Your task to perform on an android device: Open Google Image 0: 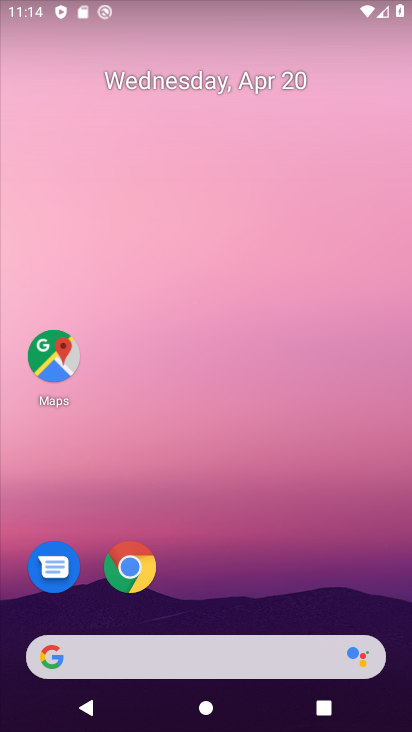
Step 0: drag from (259, 567) to (223, 82)
Your task to perform on an android device: Open Google Image 1: 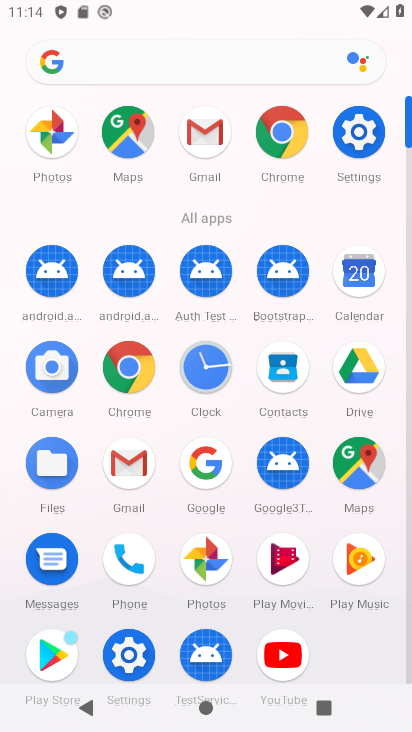
Step 1: click (209, 474)
Your task to perform on an android device: Open Google Image 2: 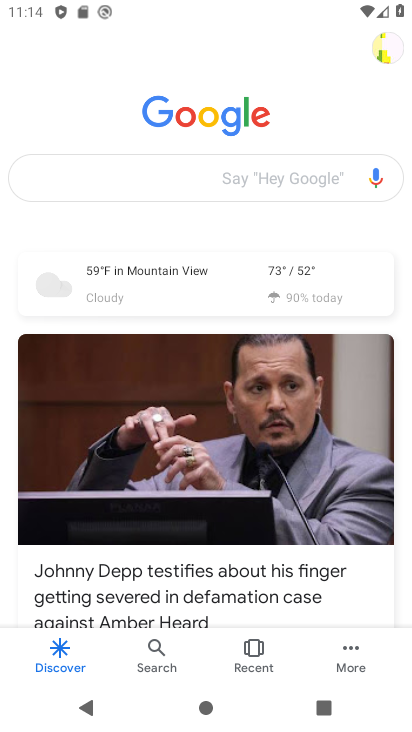
Step 2: task complete